Your task to perform on an android device: Search for "bose soundlink mini" on costco.com, select the first entry, and add it to the cart. Image 0: 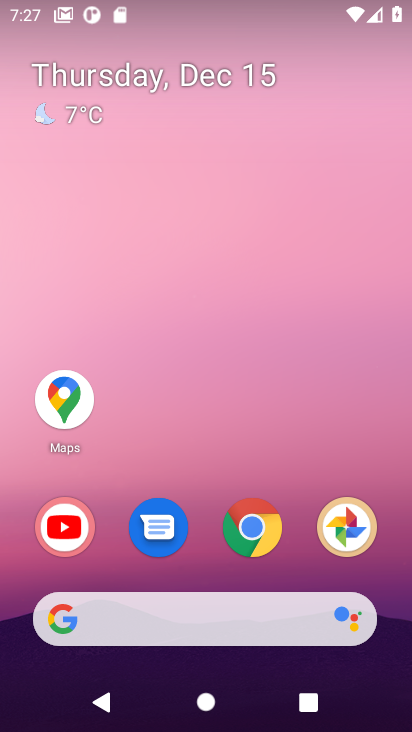
Step 0: click (249, 536)
Your task to perform on an android device: Search for "bose soundlink mini" on costco.com, select the first entry, and add it to the cart. Image 1: 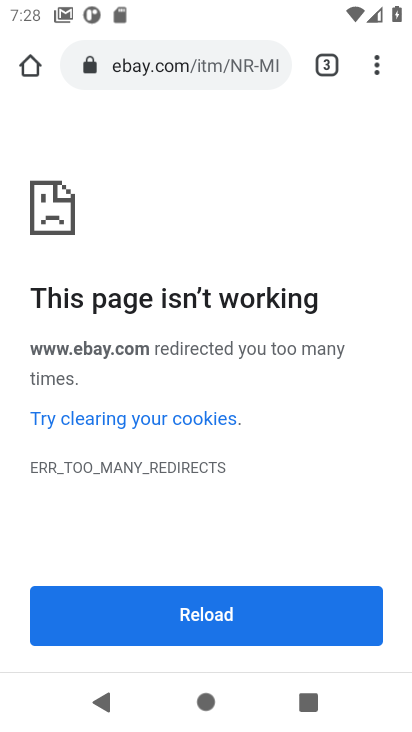
Step 1: press home button
Your task to perform on an android device: Search for "bose soundlink mini" on costco.com, select the first entry, and add it to the cart. Image 2: 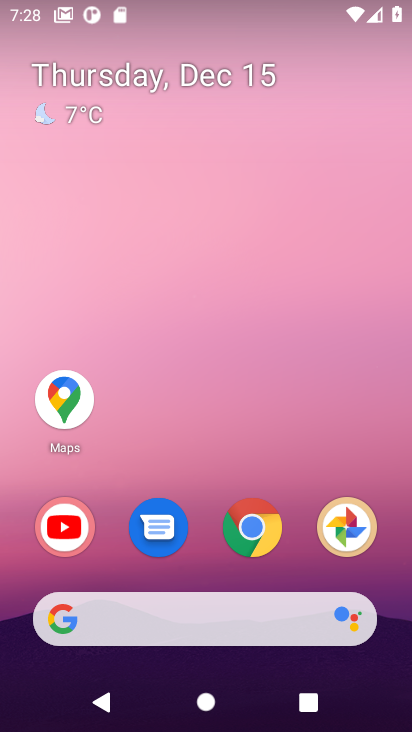
Step 2: click (270, 528)
Your task to perform on an android device: Search for "bose soundlink mini" on costco.com, select the first entry, and add it to the cart. Image 3: 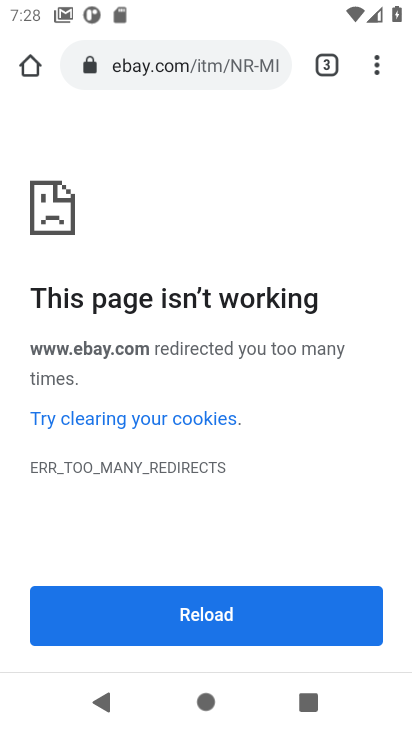
Step 3: click (155, 79)
Your task to perform on an android device: Search for "bose soundlink mini" on costco.com, select the first entry, and add it to the cart. Image 4: 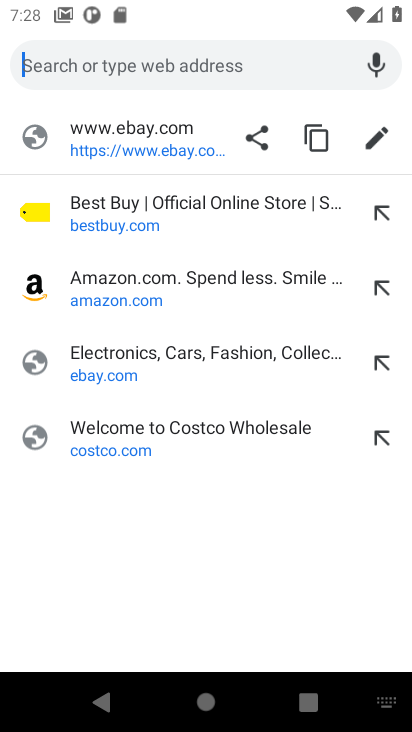
Step 4: type "costco"
Your task to perform on an android device: Search for "bose soundlink mini" on costco.com, select the first entry, and add it to the cart. Image 5: 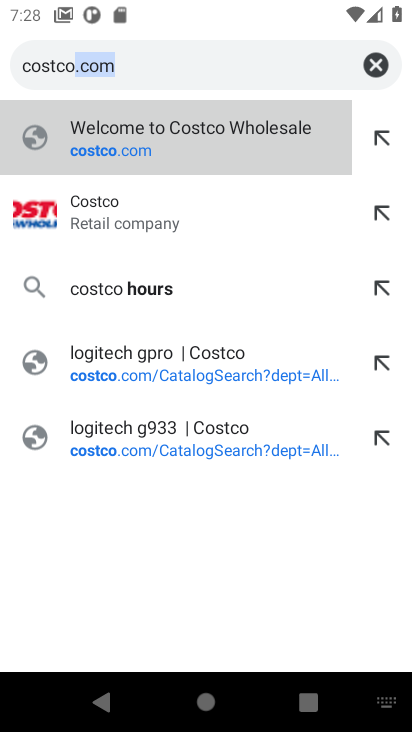
Step 5: click (114, 133)
Your task to perform on an android device: Search for "bose soundlink mini" on costco.com, select the first entry, and add it to the cart. Image 6: 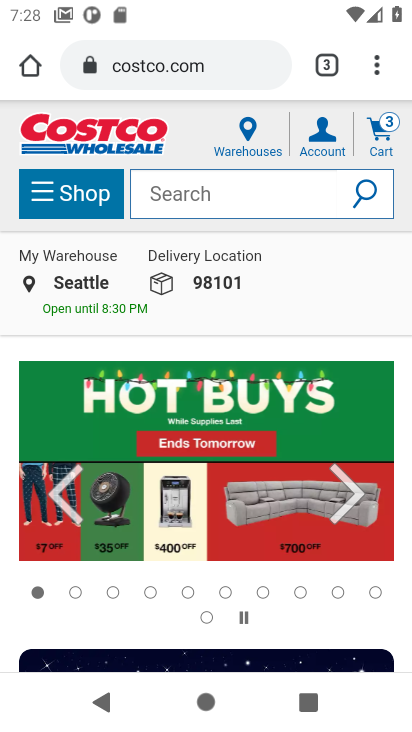
Step 6: click (198, 195)
Your task to perform on an android device: Search for "bose soundlink mini" on costco.com, select the first entry, and add it to the cart. Image 7: 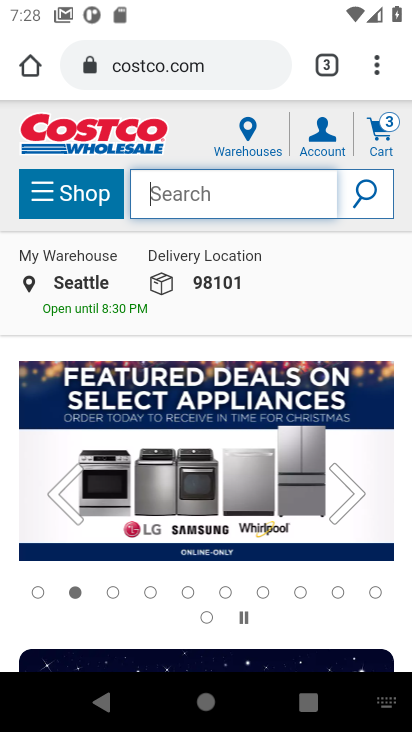
Step 7: type "bose soundlink"
Your task to perform on an android device: Search for "bose soundlink mini" on costco.com, select the first entry, and add it to the cart. Image 8: 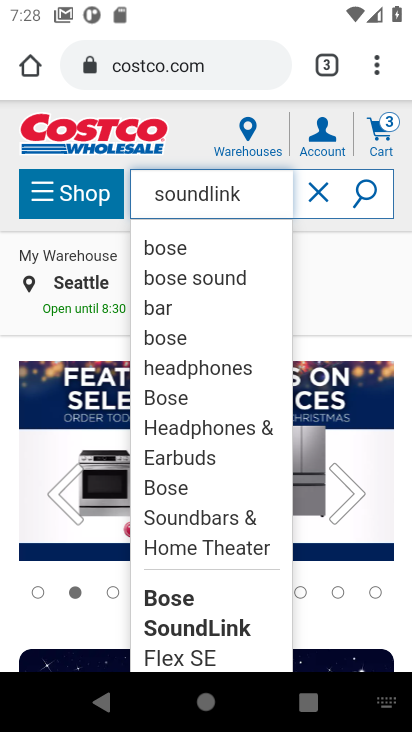
Step 8: click (369, 190)
Your task to perform on an android device: Search for "bose soundlink mini" on costco.com, select the first entry, and add it to the cart. Image 9: 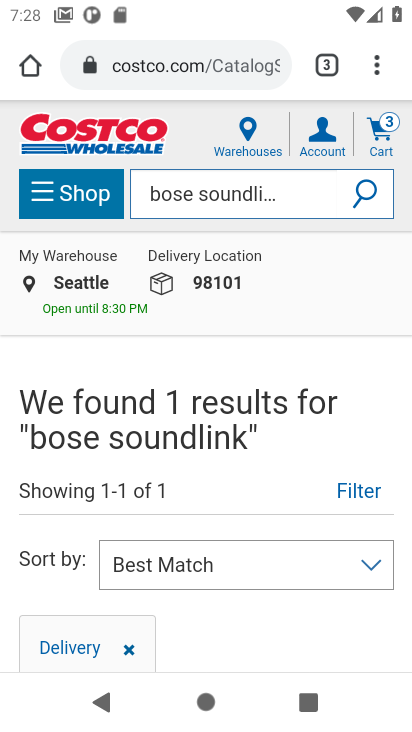
Step 9: drag from (257, 386) to (238, 147)
Your task to perform on an android device: Search for "bose soundlink mini" on costco.com, select the first entry, and add it to the cart. Image 10: 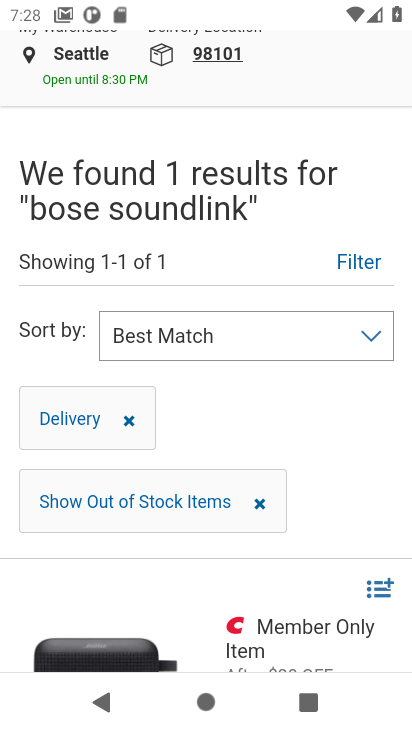
Step 10: click (277, 634)
Your task to perform on an android device: Search for "bose soundlink mini" on costco.com, select the first entry, and add it to the cart. Image 11: 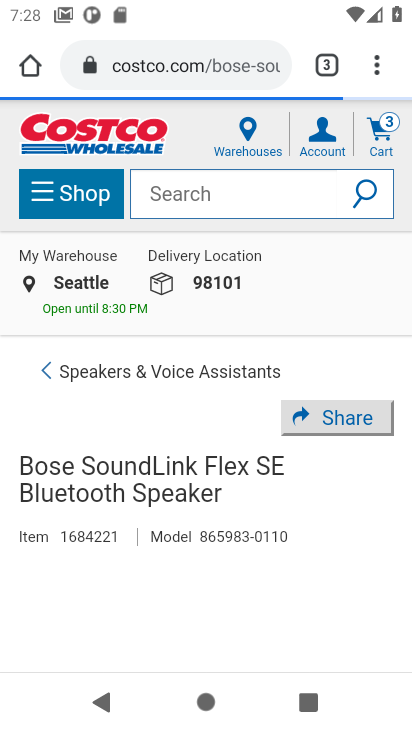
Step 11: task complete